Your task to perform on an android device: all mails in gmail Image 0: 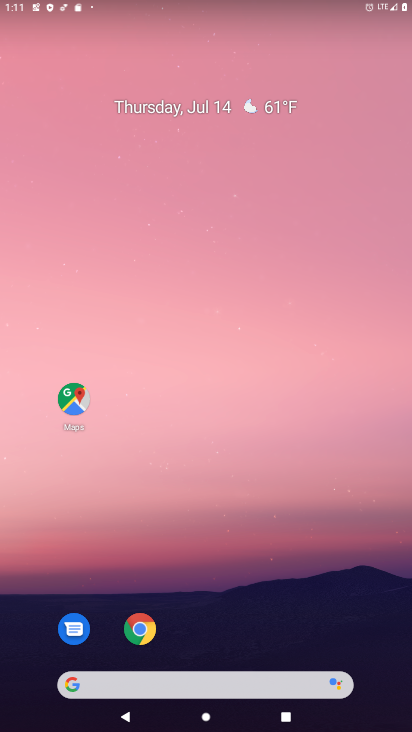
Step 0: press home button
Your task to perform on an android device: all mails in gmail Image 1: 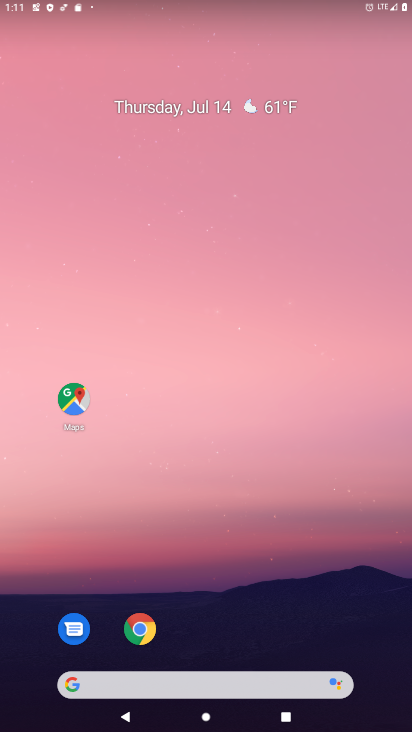
Step 1: drag from (239, 558) to (190, 12)
Your task to perform on an android device: all mails in gmail Image 2: 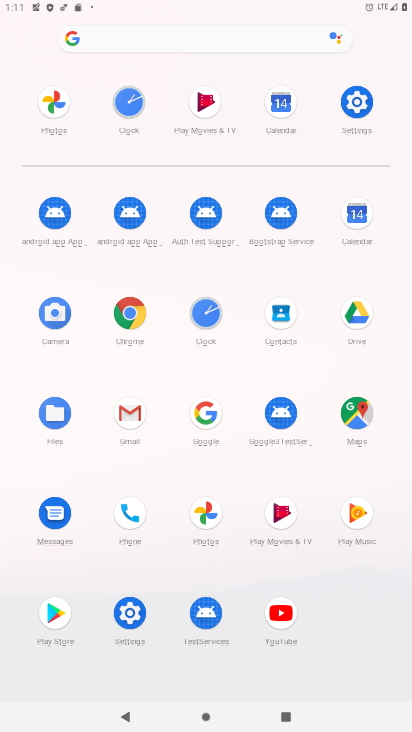
Step 2: click (130, 413)
Your task to perform on an android device: all mails in gmail Image 3: 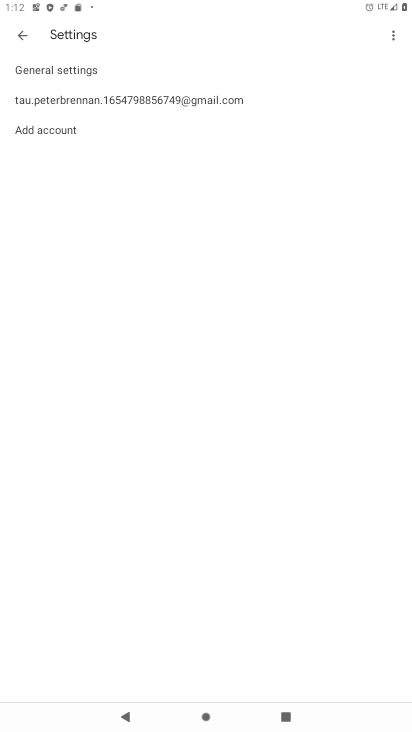
Step 3: click (18, 30)
Your task to perform on an android device: all mails in gmail Image 4: 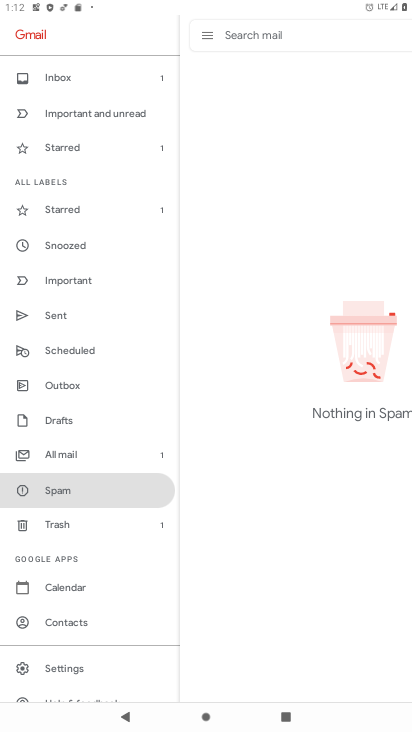
Step 4: click (69, 446)
Your task to perform on an android device: all mails in gmail Image 5: 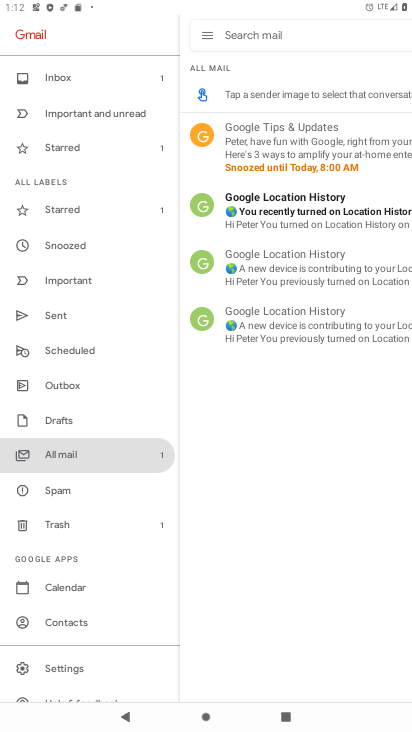
Step 5: task complete